Your task to perform on an android device: Open ESPN.com Image 0: 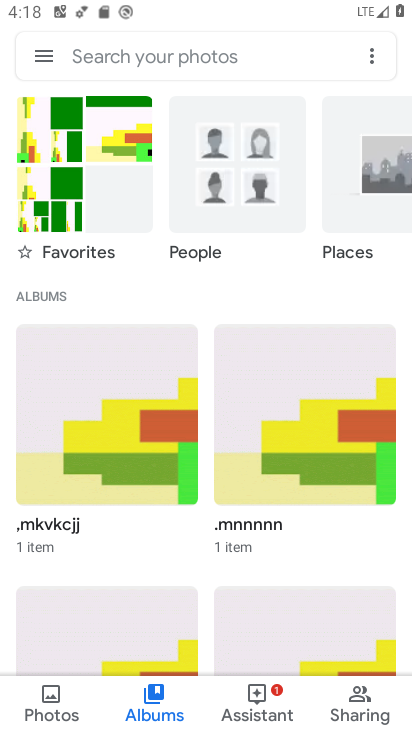
Step 0: press home button
Your task to perform on an android device: Open ESPN.com Image 1: 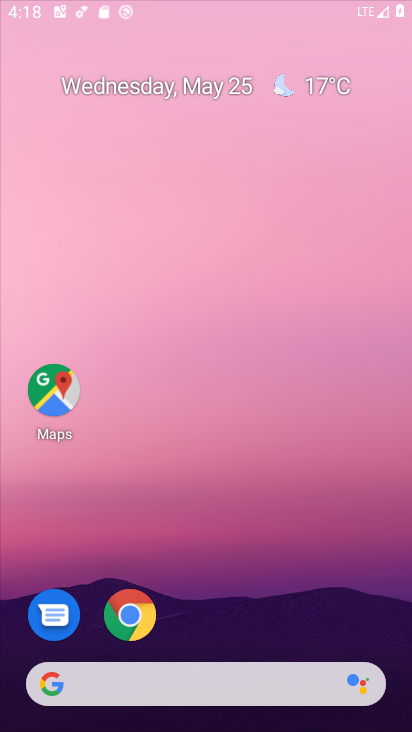
Step 1: drag from (312, 535) to (164, 18)
Your task to perform on an android device: Open ESPN.com Image 2: 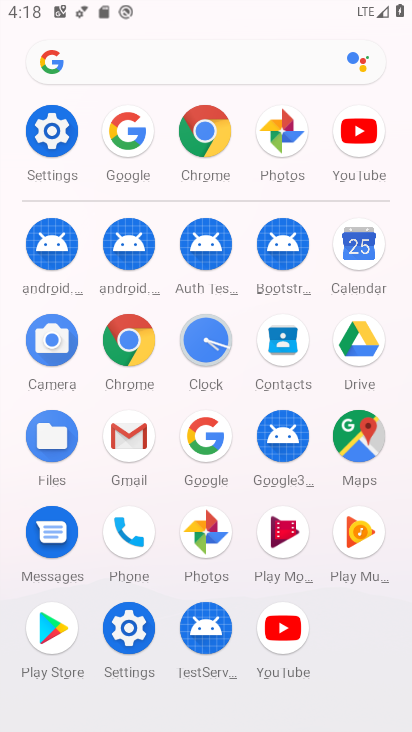
Step 2: click (121, 333)
Your task to perform on an android device: Open ESPN.com Image 3: 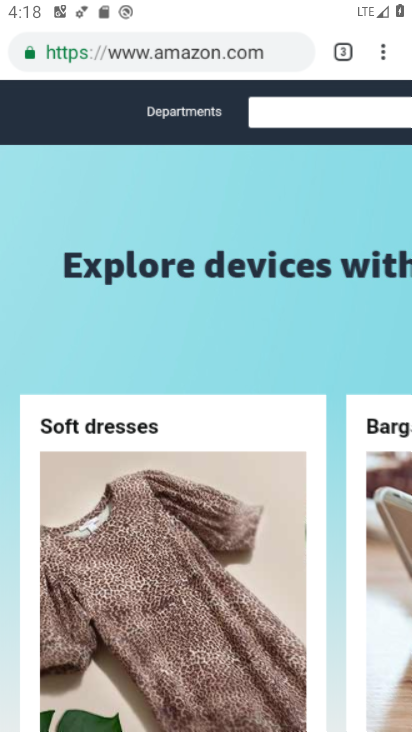
Step 3: click (334, 46)
Your task to perform on an android device: Open ESPN.com Image 4: 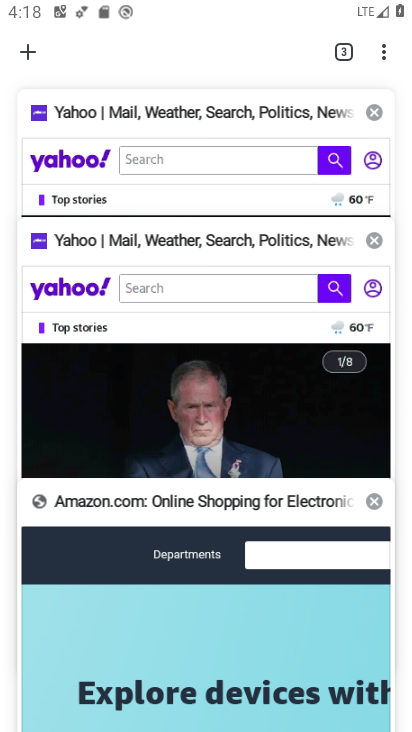
Step 4: click (37, 53)
Your task to perform on an android device: Open ESPN.com Image 5: 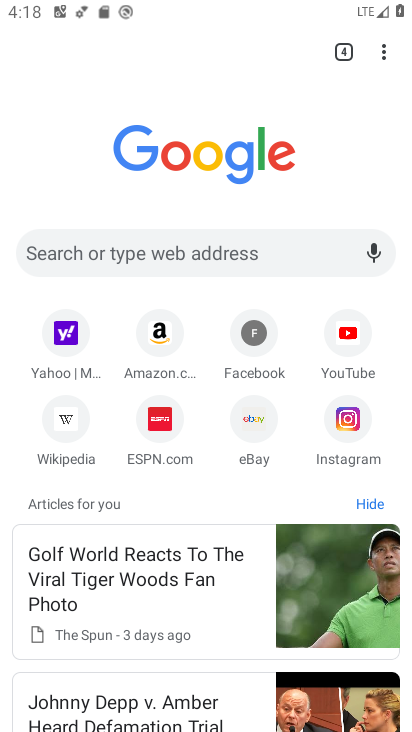
Step 5: click (160, 426)
Your task to perform on an android device: Open ESPN.com Image 6: 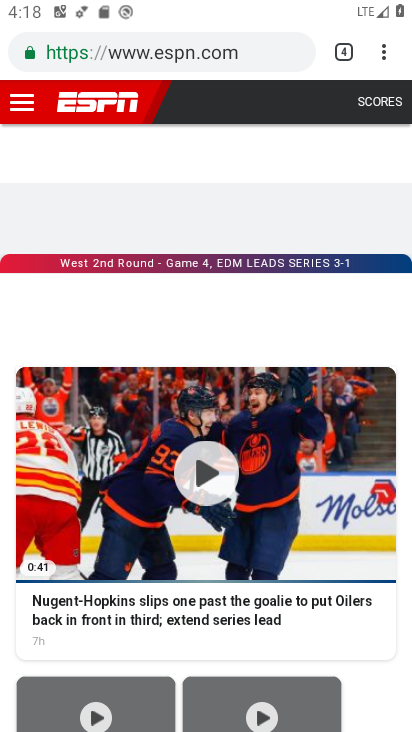
Step 6: task complete